Your task to perform on an android device: find which apps use the phone's location Image 0: 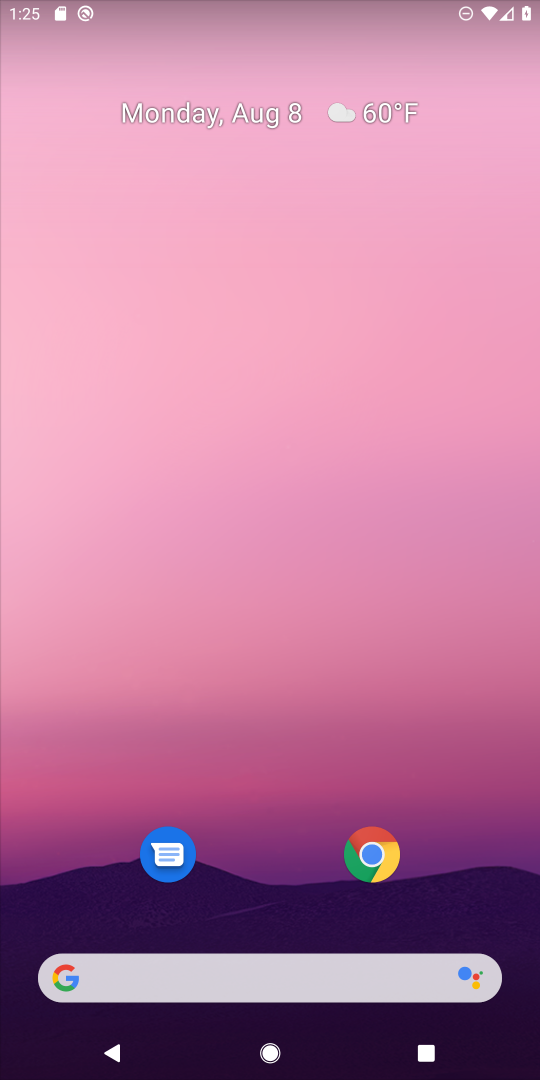
Step 0: press home button
Your task to perform on an android device: find which apps use the phone's location Image 1: 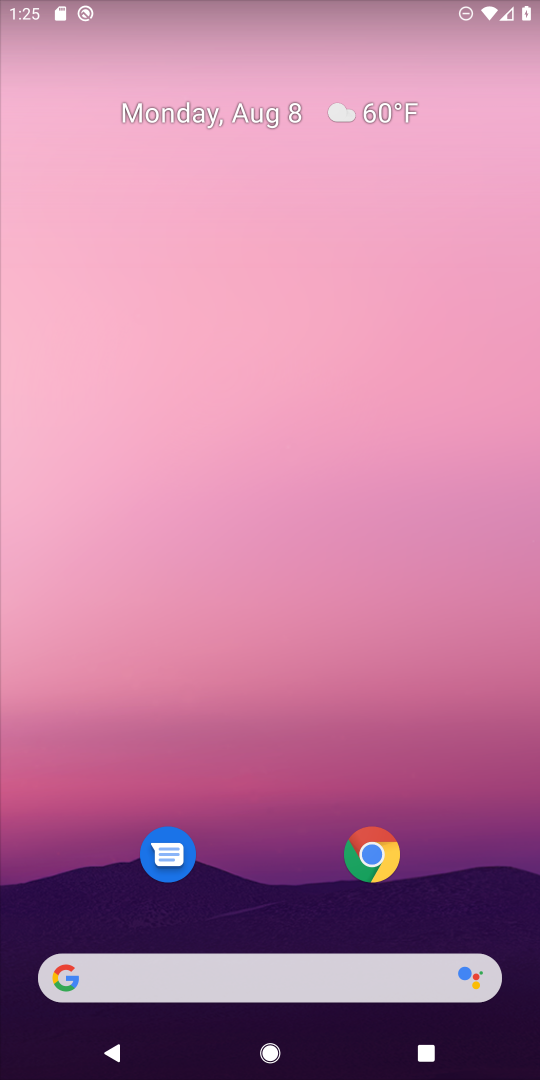
Step 1: drag from (265, 918) to (259, 211)
Your task to perform on an android device: find which apps use the phone's location Image 2: 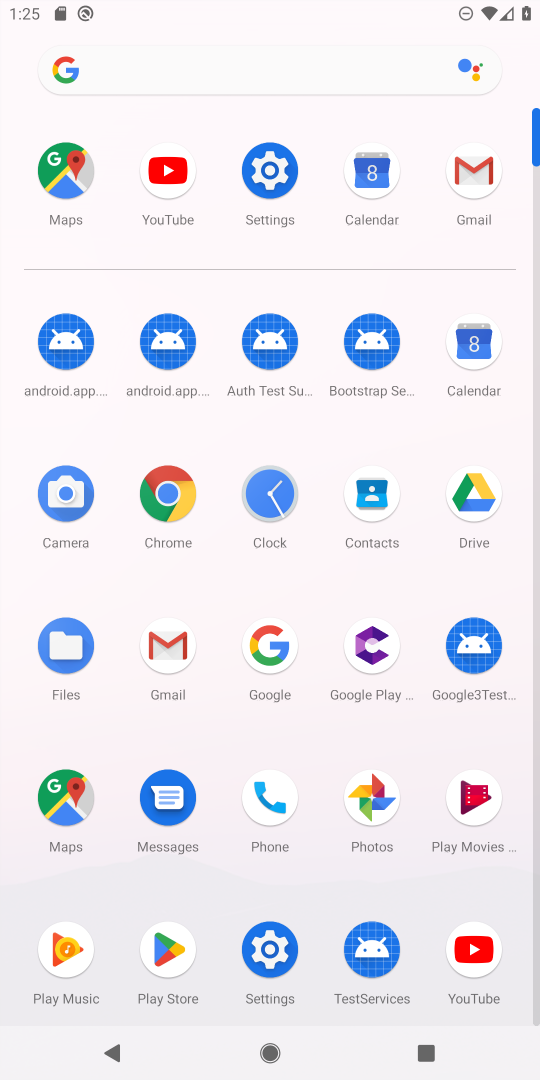
Step 2: click (266, 162)
Your task to perform on an android device: find which apps use the phone's location Image 3: 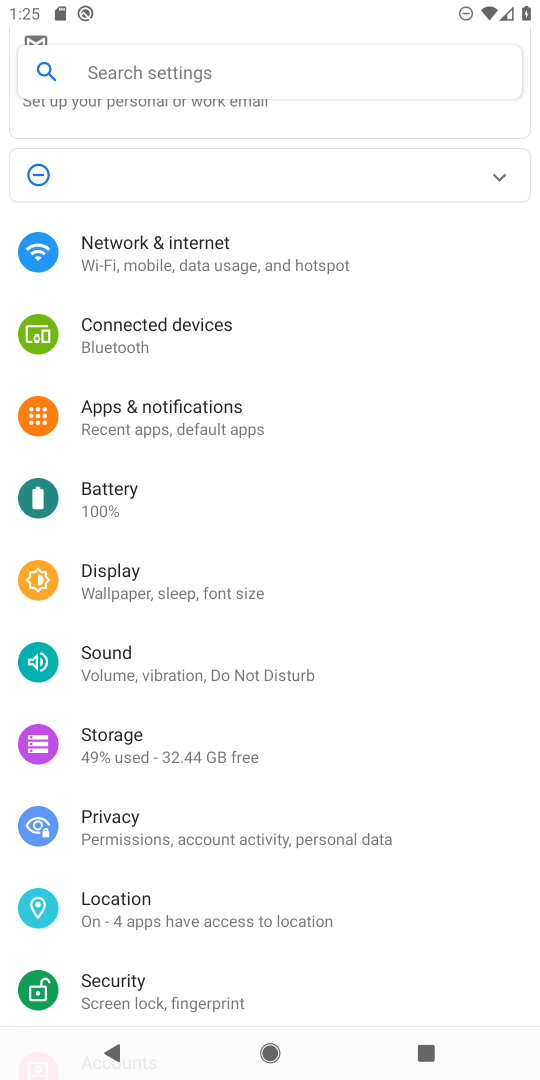
Step 3: click (109, 915)
Your task to perform on an android device: find which apps use the phone's location Image 4: 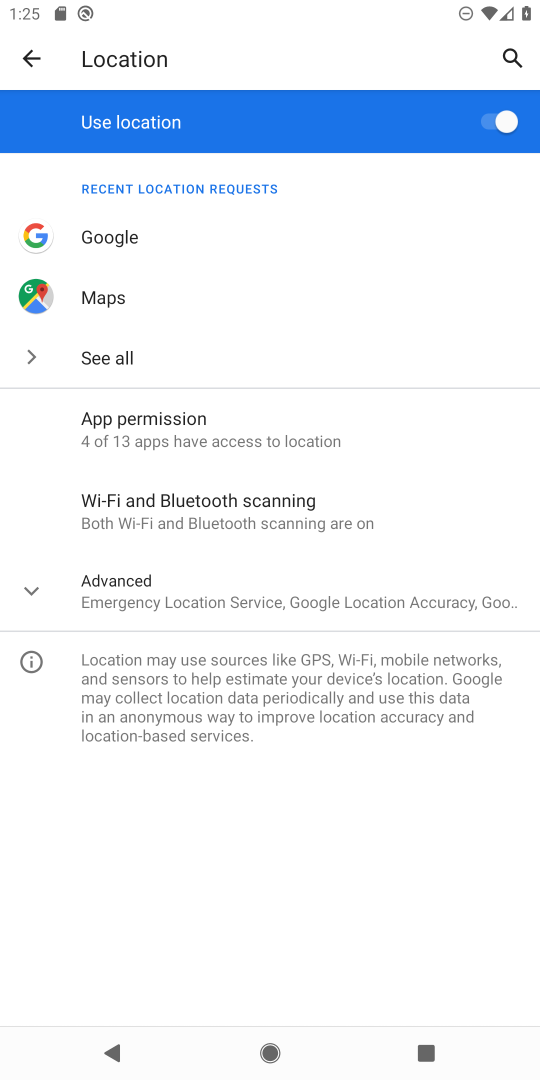
Step 4: click (208, 432)
Your task to perform on an android device: find which apps use the phone's location Image 5: 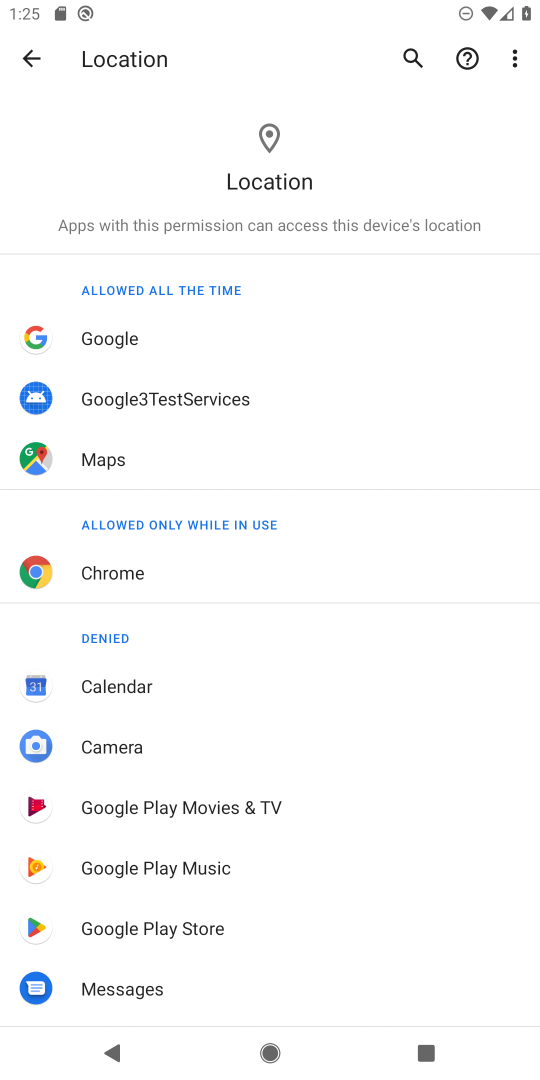
Step 5: task complete